Your task to perform on an android device: change alarm snooze length Image 0: 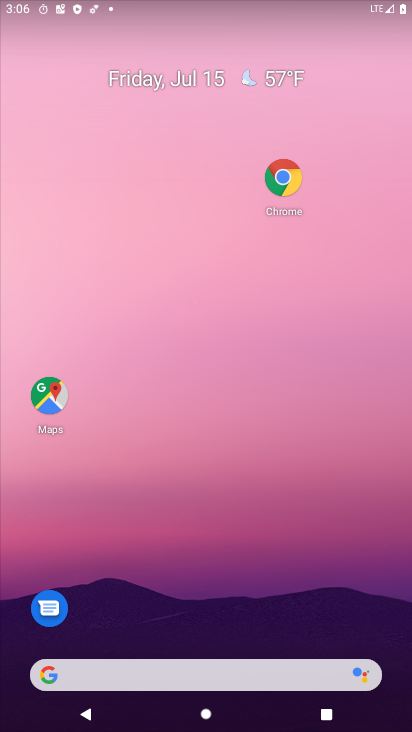
Step 0: press home button
Your task to perform on an android device: change alarm snooze length Image 1: 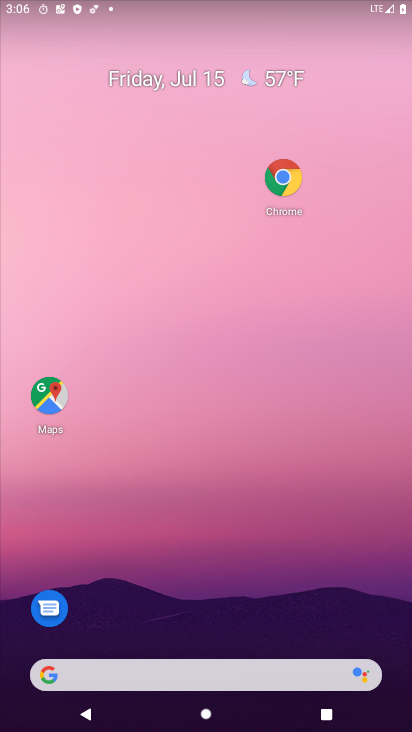
Step 1: press home button
Your task to perform on an android device: change alarm snooze length Image 2: 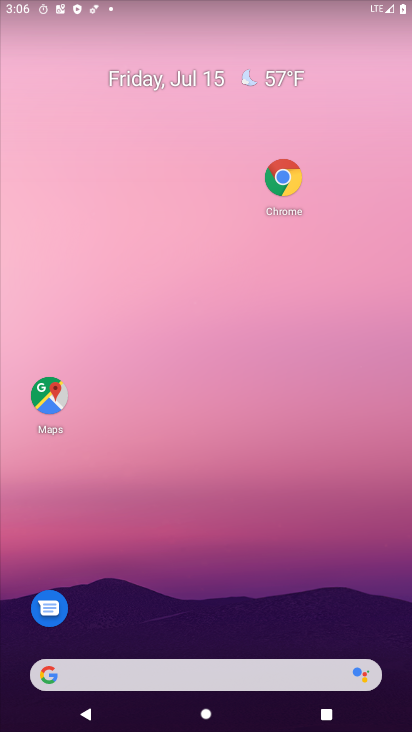
Step 2: press home button
Your task to perform on an android device: change alarm snooze length Image 3: 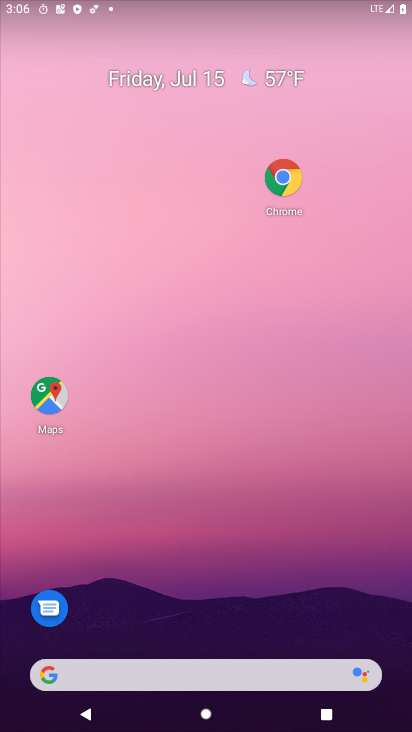
Step 3: drag from (296, 574) to (285, 123)
Your task to perform on an android device: change alarm snooze length Image 4: 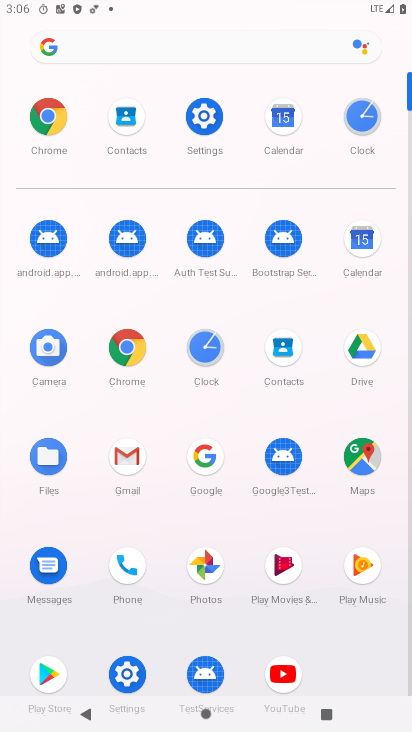
Step 4: click (198, 361)
Your task to perform on an android device: change alarm snooze length Image 5: 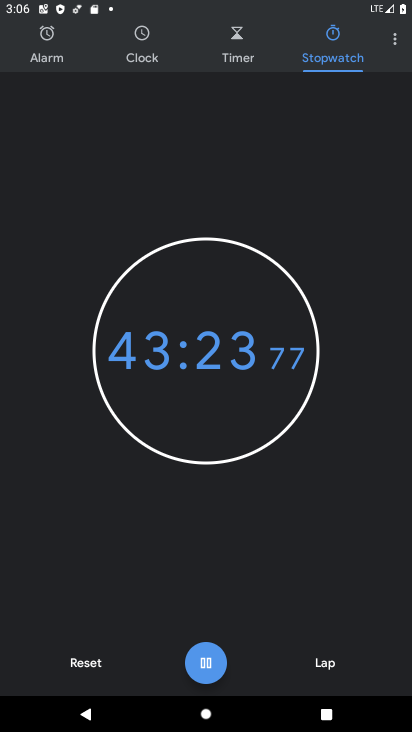
Step 5: click (47, 46)
Your task to perform on an android device: change alarm snooze length Image 6: 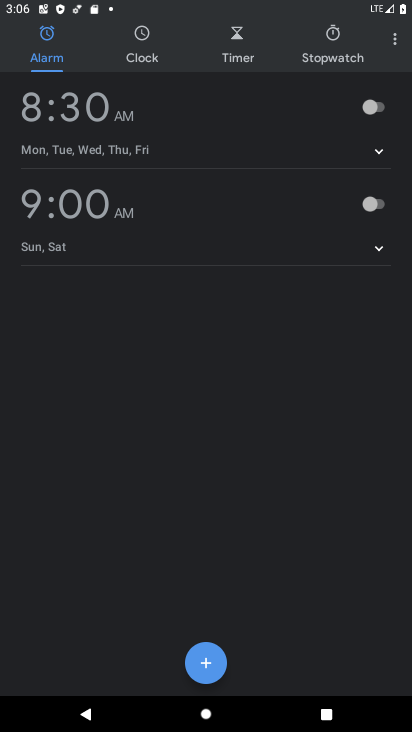
Step 6: task complete